Your task to perform on an android device: turn off data saver in the chrome app Image 0: 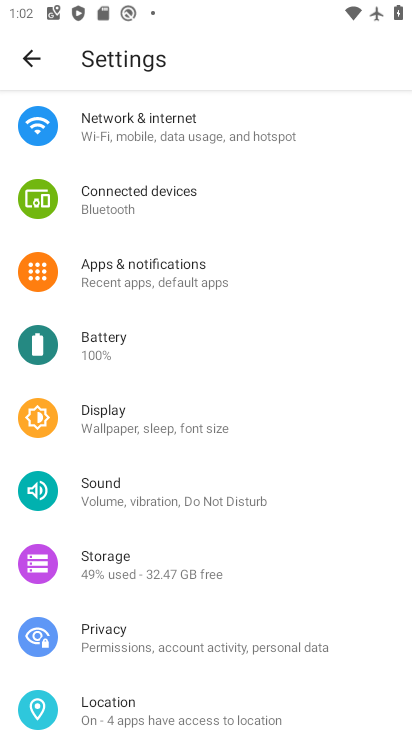
Step 0: press home button
Your task to perform on an android device: turn off data saver in the chrome app Image 1: 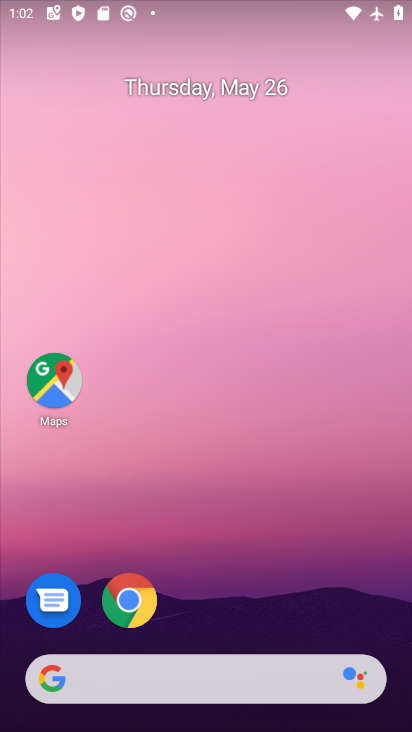
Step 1: click (133, 596)
Your task to perform on an android device: turn off data saver in the chrome app Image 2: 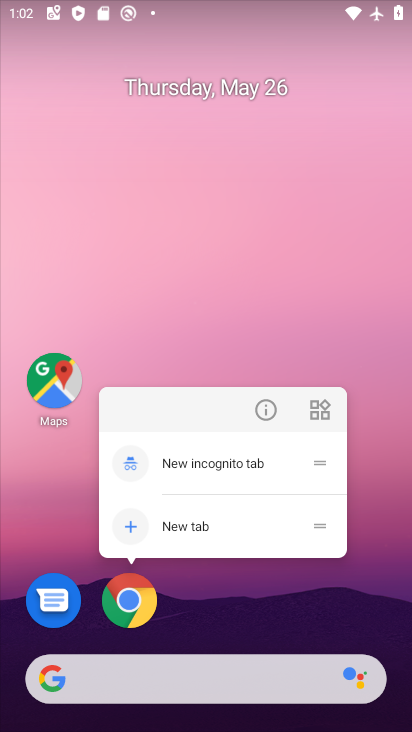
Step 2: click (124, 600)
Your task to perform on an android device: turn off data saver in the chrome app Image 3: 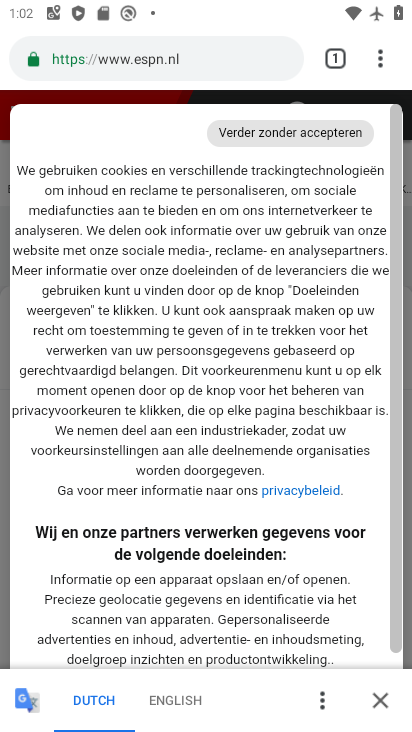
Step 3: drag from (377, 55) to (228, 635)
Your task to perform on an android device: turn off data saver in the chrome app Image 4: 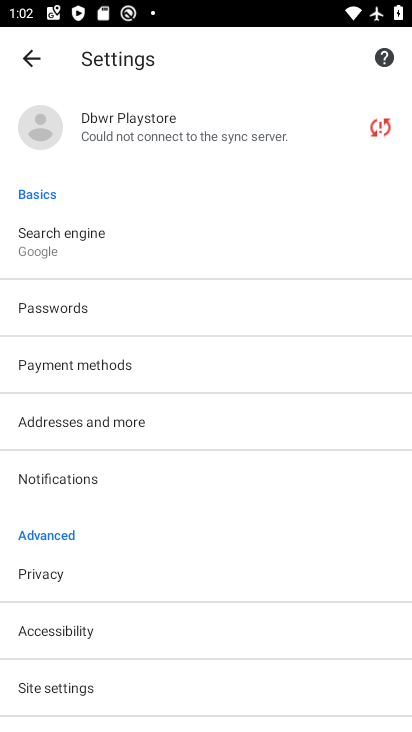
Step 4: drag from (205, 604) to (224, 49)
Your task to perform on an android device: turn off data saver in the chrome app Image 5: 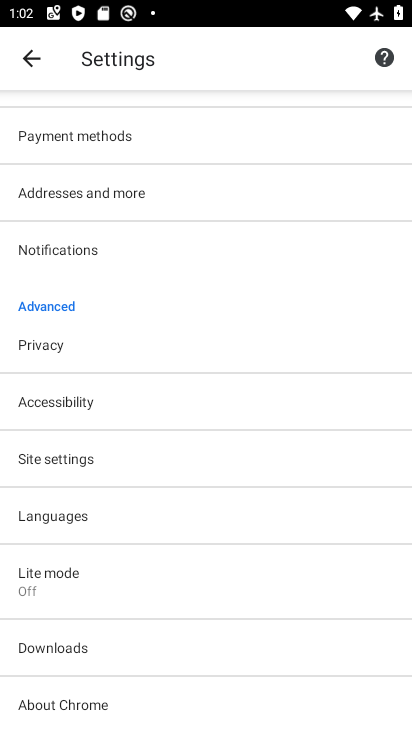
Step 5: click (114, 578)
Your task to perform on an android device: turn off data saver in the chrome app Image 6: 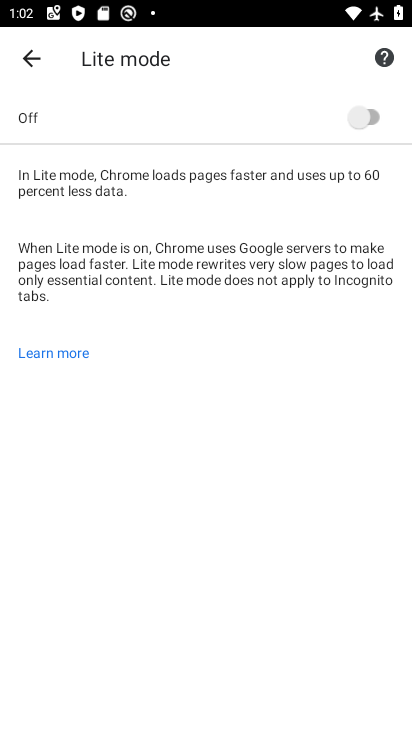
Step 6: task complete